Your task to perform on an android device: toggle wifi Image 0: 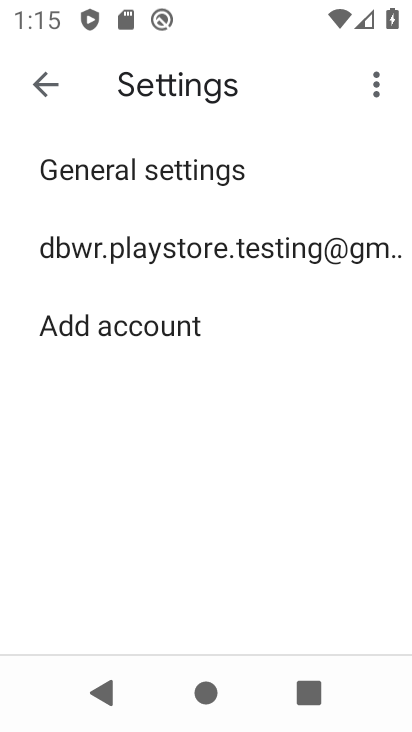
Step 0: drag from (204, 3) to (179, 536)
Your task to perform on an android device: toggle wifi Image 1: 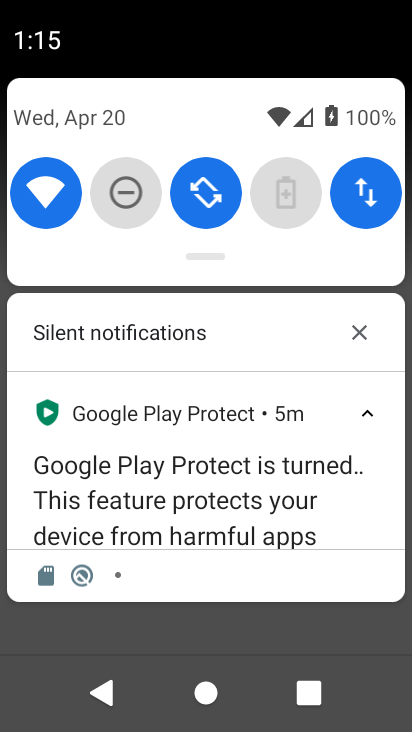
Step 1: click (69, 208)
Your task to perform on an android device: toggle wifi Image 2: 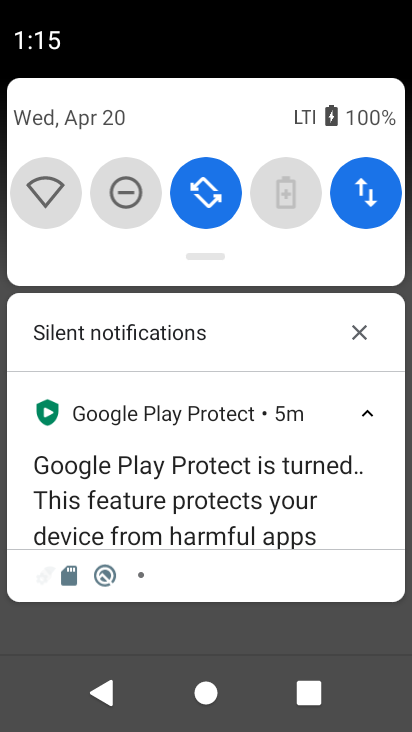
Step 2: click (69, 208)
Your task to perform on an android device: toggle wifi Image 3: 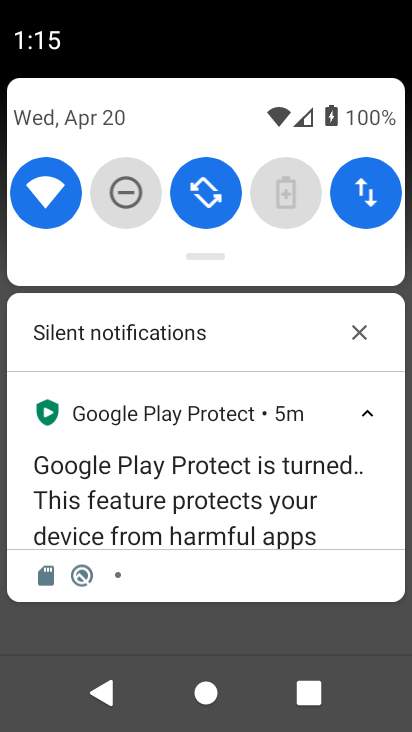
Step 3: task complete